Your task to perform on an android device: Search for the best rated phone case for the iPhone 8. Image 0: 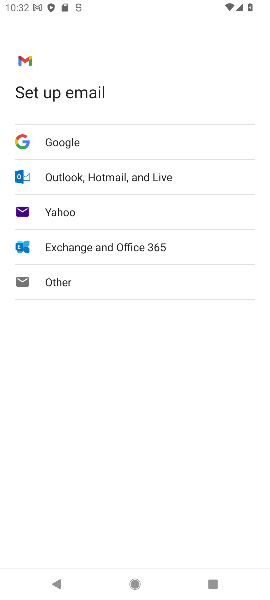
Step 0: press home button
Your task to perform on an android device: Search for the best rated phone case for the iPhone 8. Image 1: 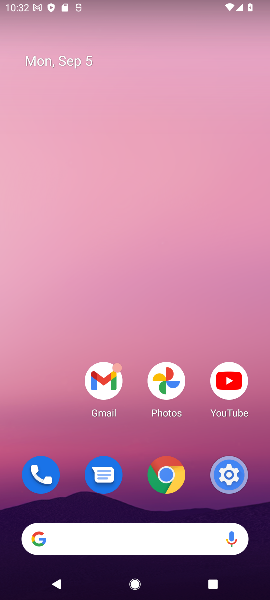
Step 1: click (120, 538)
Your task to perform on an android device: Search for the best rated phone case for the iPhone 8. Image 2: 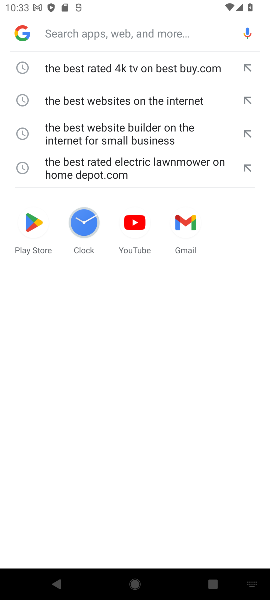
Step 2: type "the best rated phone case for the iPhone 8"
Your task to perform on an android device: Search for the best rated phone case for the iPhone 8. Image 3: 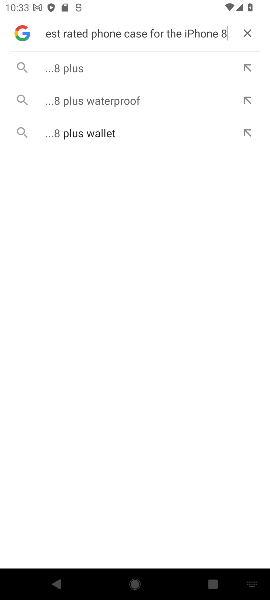
Step 3: click (73, 69)
Your task to perform on an android device: Search for the best rated phone case for the iPhone 8. Image 4: 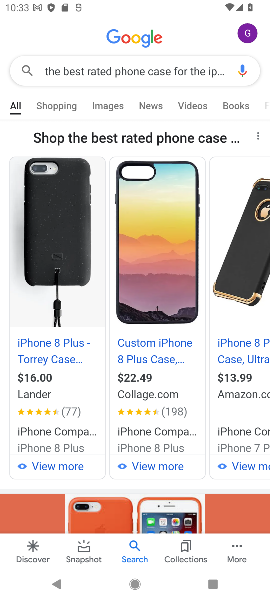
Step 4: task complete